Your task to perform on an android device: add a contact Image 0: 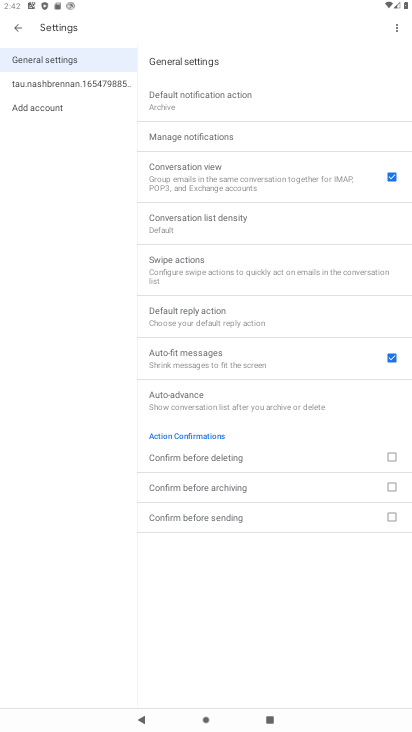
Step 0: press home button
Your task to perform on an android device: add a contact Image 1: 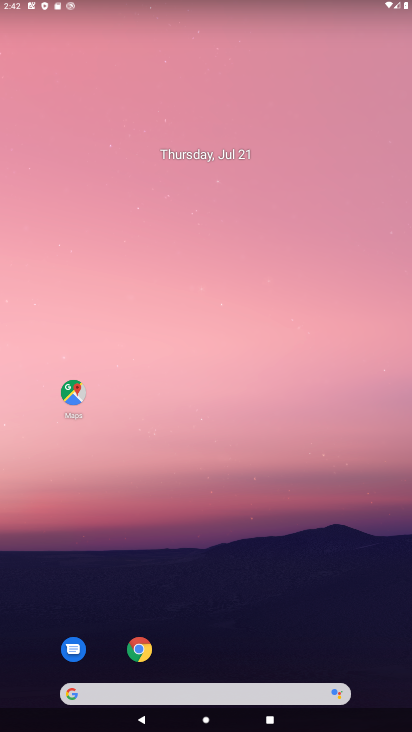
Step 1: drag from (308, 646) to (137, 192)
Your task to perform on an android device: add a contact Image 2: 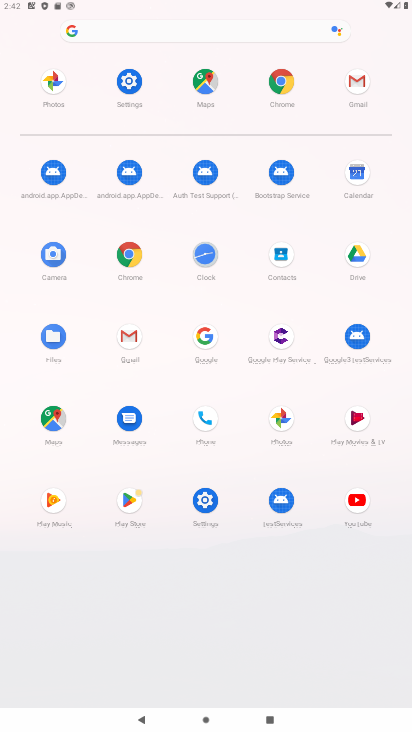
Step 2: click (285, 253)
Your task to perform on an android device: add a contact Image 3: 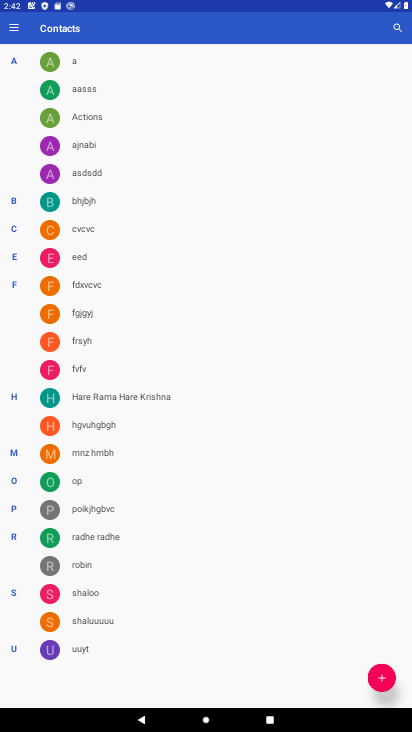
Step 3: click (378, 668)
Your task to perform on an android device: add a contact Image 4: 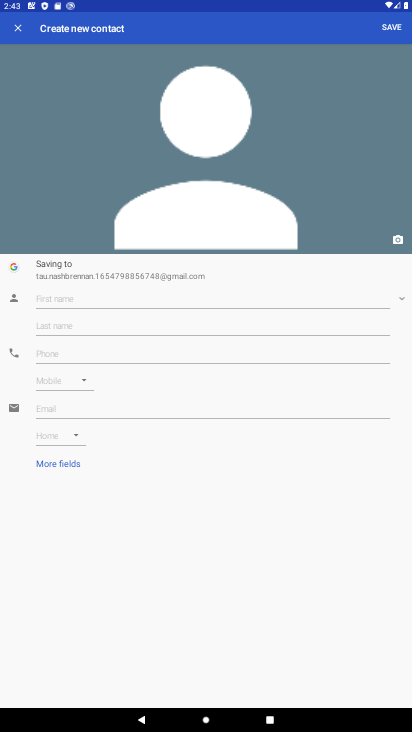
Step 4: click (120, 303)
Your task to perform on an android device: add a contact Image 5: 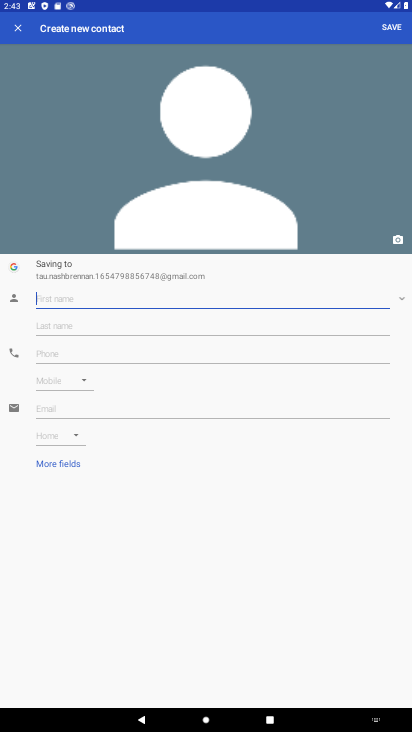
Step 5: type "dgfd"
Your task to perform on an android device: add a contact Image 6: 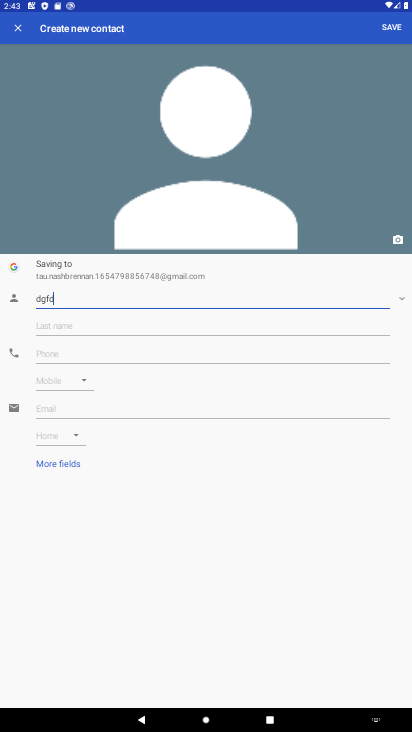
Step 6: click (205, 312)
Your task to perform on an android device: add a contact Image 7: 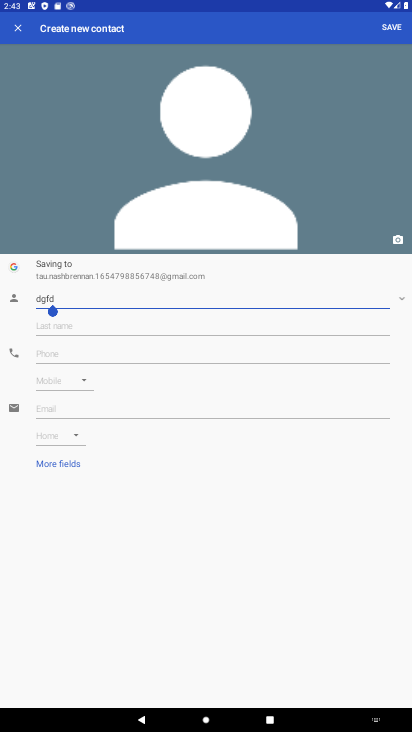
Step 7: type "sdvscs"
Your task to perform on an android device: add a contact Image 8: 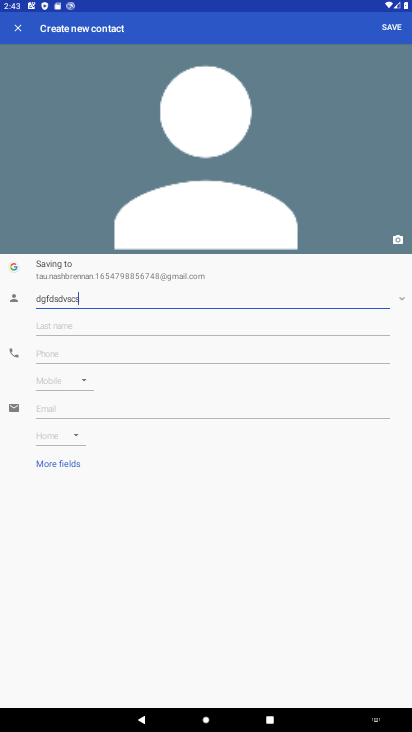
Step 8: click (237, 315)
Your task to perform on an android device: add a contact Image 9: 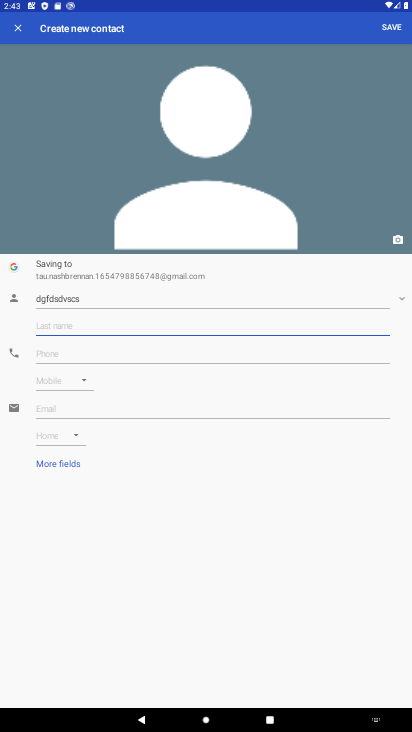
Step 9: type "ddvvfdc"
Your task to perform on an android device: add a contact Image 10: 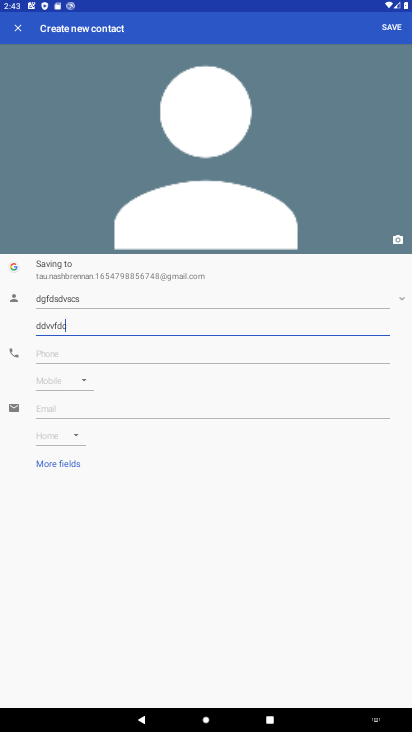
Step 10: click (104, 354)
Your task to perform on an android device: add a contact Image 11: 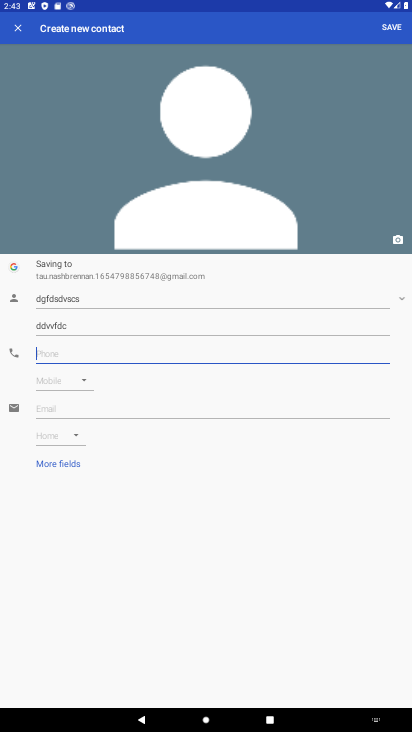
Step 11: type "5647589"
Your task to perform on an android device: add a contact Image 12: 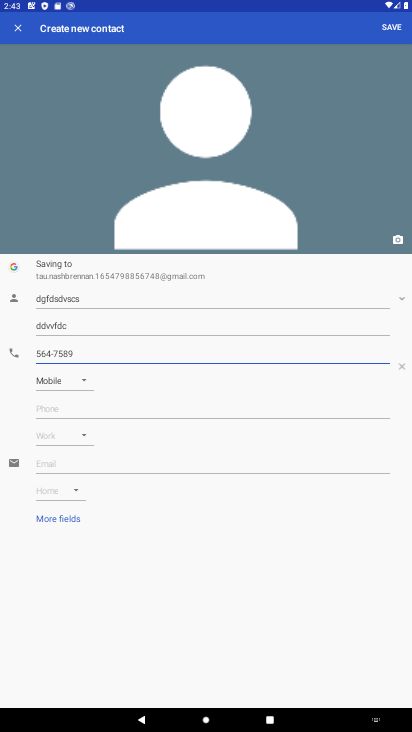
Step 12: click (377, 22)
Your task to perform on an android device: add a contact Image 13: 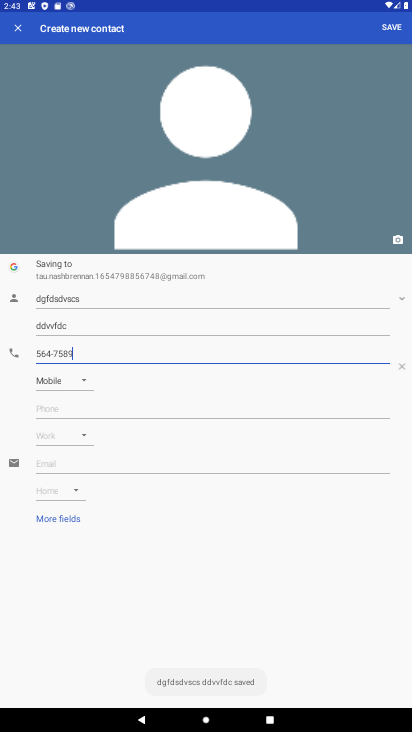
Step 13: task complete